Your task to perform on an android device: open wifi settings Image 0: 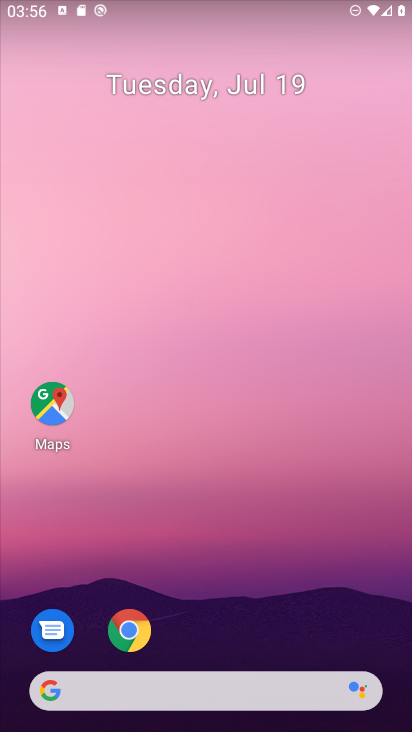
Step 0: drag from (340, 626) to (325, 132)
Your task to perform on an android device: open wifi settings Image 1: 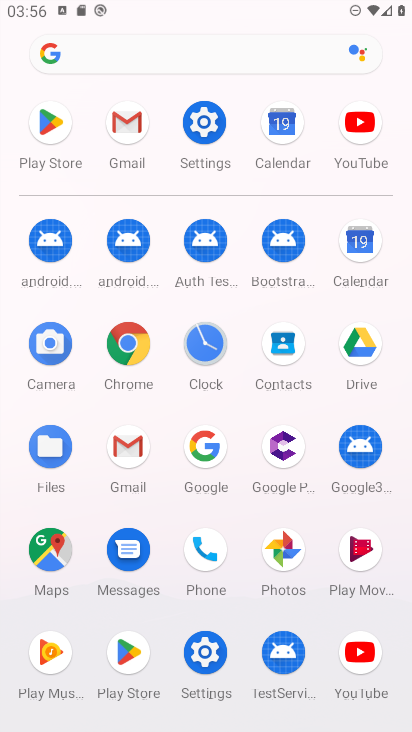
Step 1: click (204, 649)
Your task to perform on an android device: open wifi settings Image 2: 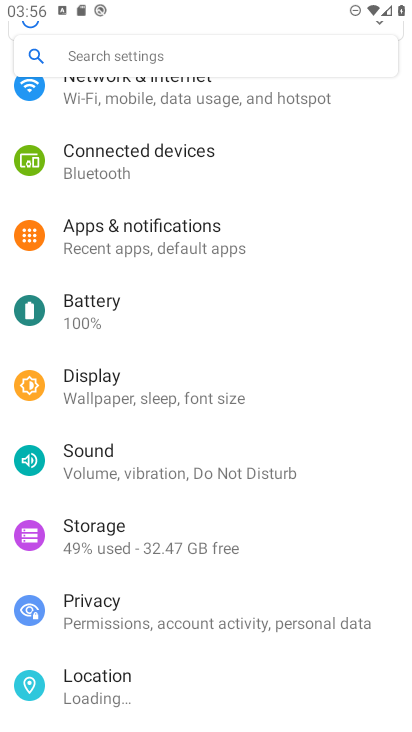
Step 2: drag from (304, 182) to (291, 371)
Your task to perform on an android device: open wifi settings Image 3: 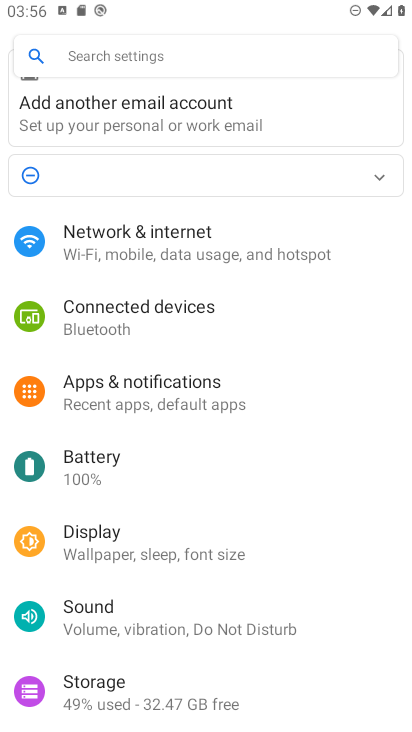
Step 3: click (99, 231)
Your task to perform on an android device: open wifi settings Image 4: 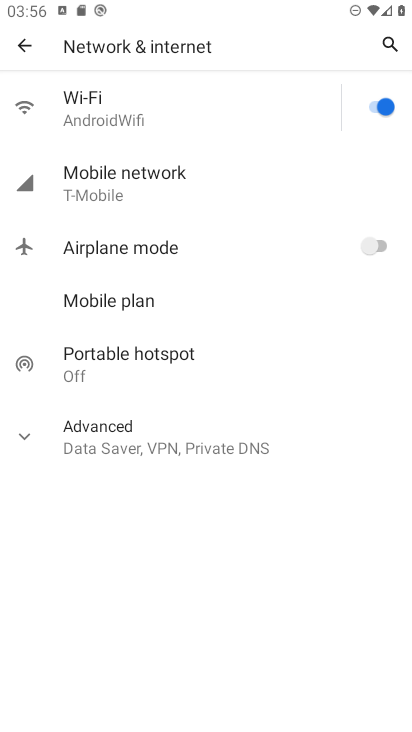
Step 4: click (85, 103)
Your task to perform on an android device: open wifi settings Image 5: 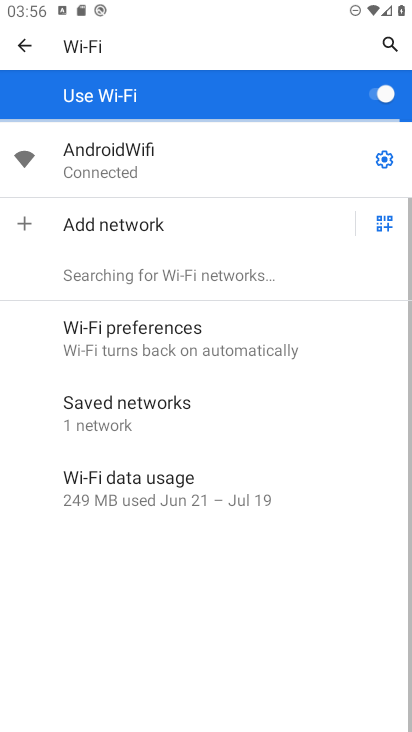
Step 5: task complete